Your task to perform on an android device: move an email to a new category in the gmail app Image 0: 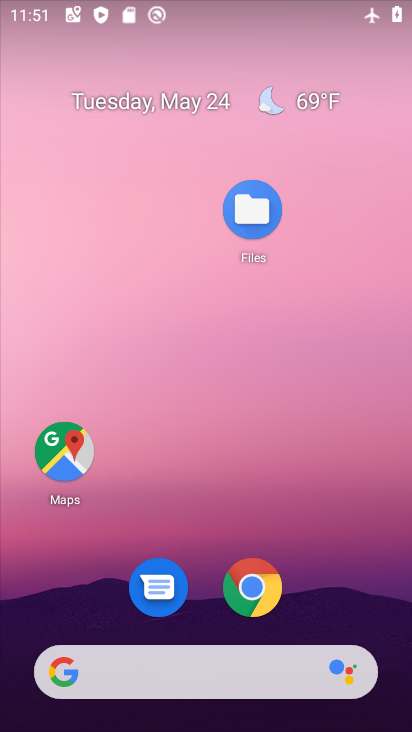
Step 0: drag from (345, 595) to (150, 192)
Your task to perform on an android device: move an email to a new category in the gmail app Image 1: 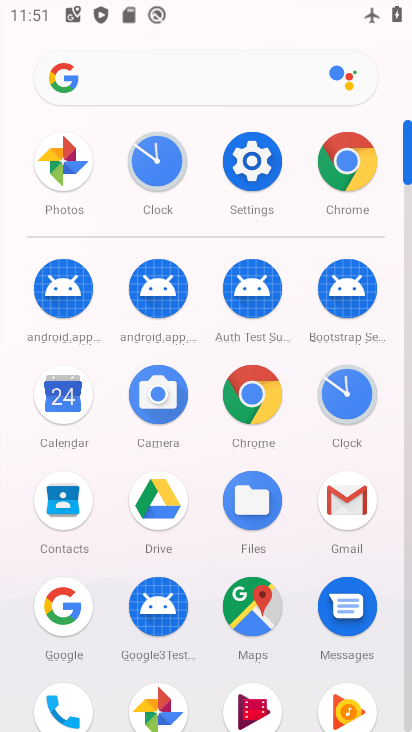
Step 1: click (341, 500)
Your task to perform on an android device: move an email to a new category in the gmail app Image 2: 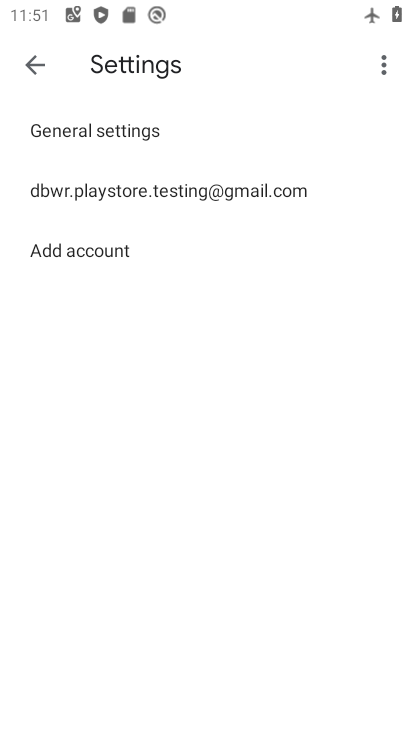
Step 2: press back button
Your task to perform on an android device: move an email to a new category in the gmail app Image 3: 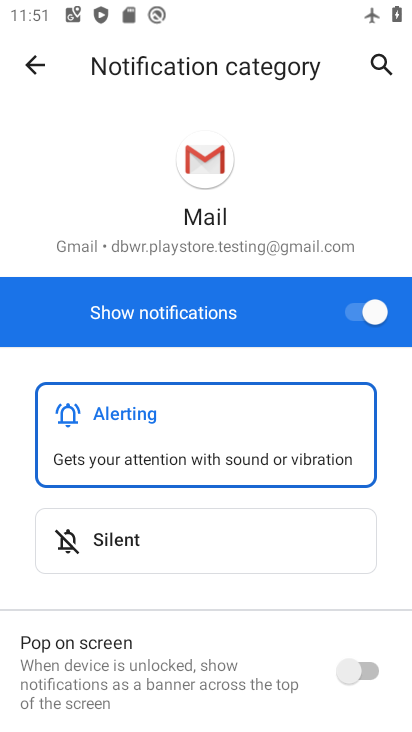
Step 3: press back button
Your task to perform on an android device: move an email to a new category in the gmail app Image 4: 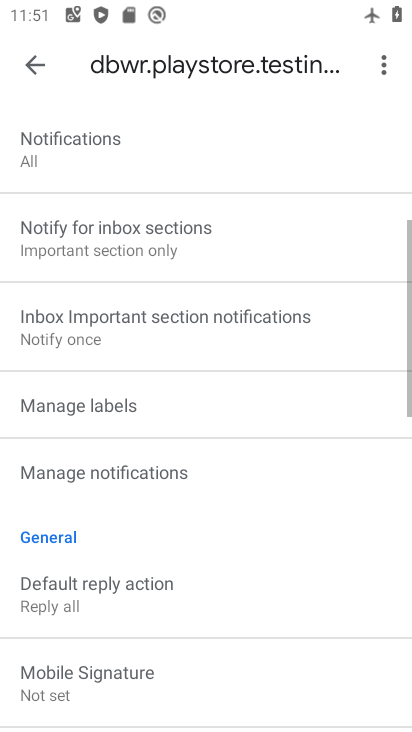
Step 4: press back button
Your task to perform on an android device: move an email to a new category in the gmail app Image 5: 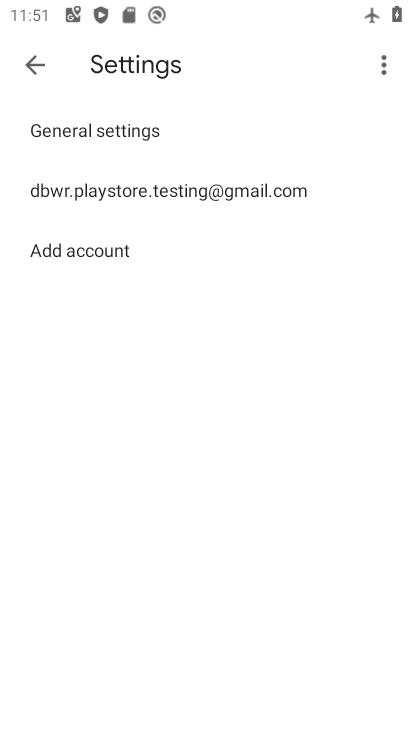
Step 5: press back button
Your task to perform on an android device: move an email to a new category in the gmail app Image 6: 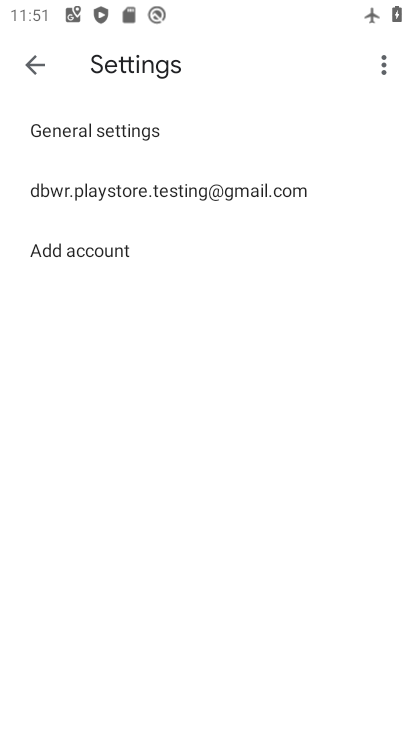
Step 6: press back button
Your task to perform on an android device: move an email to a new category in the gmail app Image 7: 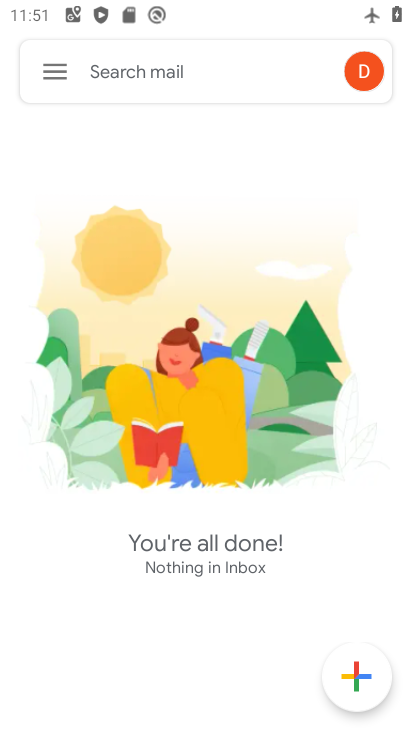
Step 7: click (48, 79)
Your task to perform on an android device: move an email to a new category in the gmail app Image 8: 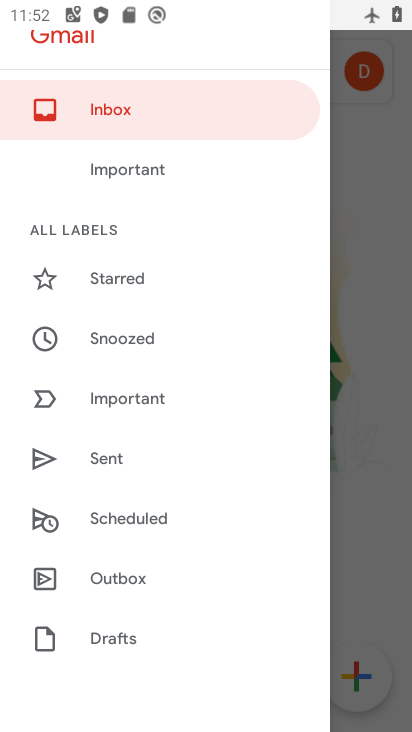
Step 8: drag from (238, 553) to (367, 202)
Your task to perform on an android device: move an email to a new category in the gmail app Image 9: 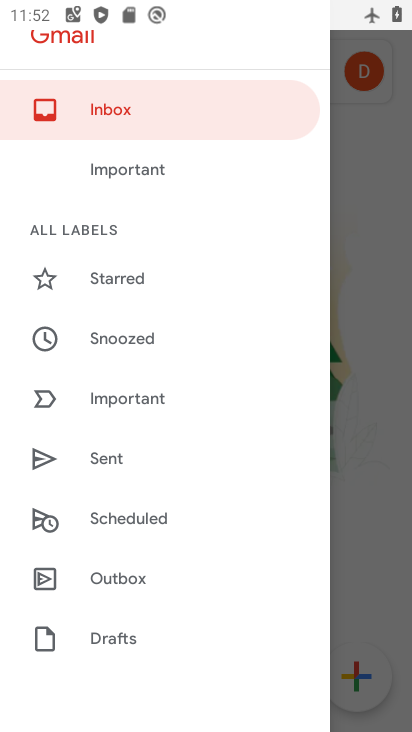
Step 9: drag from (123, 624) to (77, 308)
Your task to perform on an android device: move an email to a new category in the gmail app Image 10: 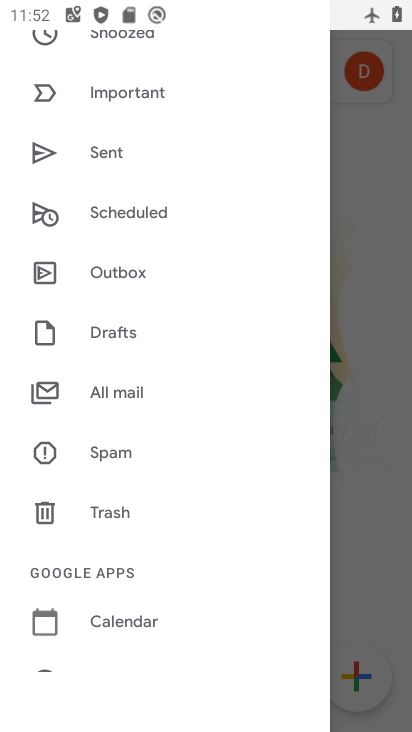
Step 10: click (352, 347)
Your task to perform on an android device: move an email to a new category in the gmail app Image 11: 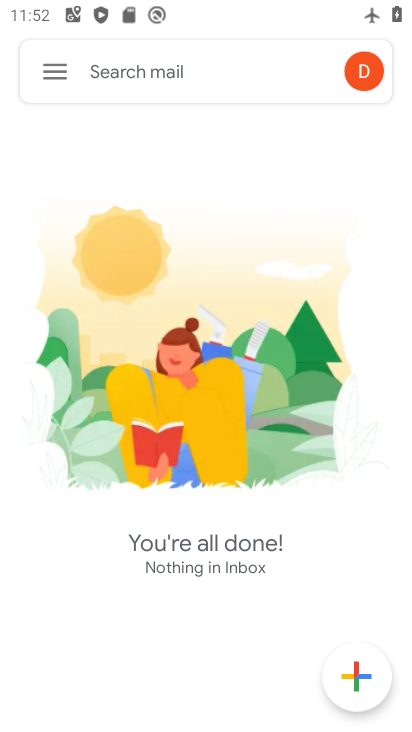
Step 11: task complete